Your task to perform on an android device: check out phone information Image 0: 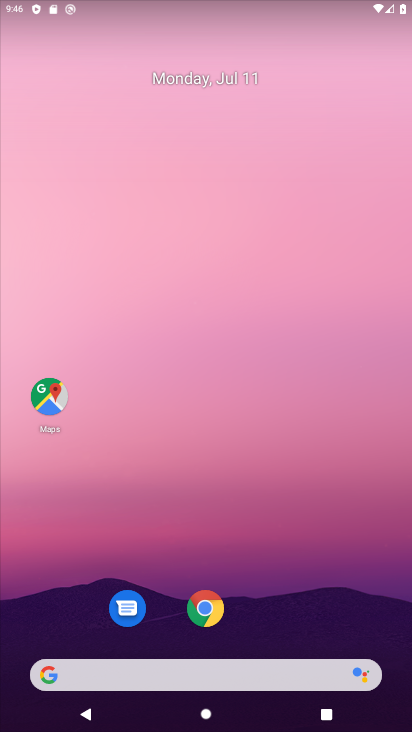
Step 0: drag from (26, 716) to (191, 48)
Your task to perform on an android device: check out phone information Image 1: 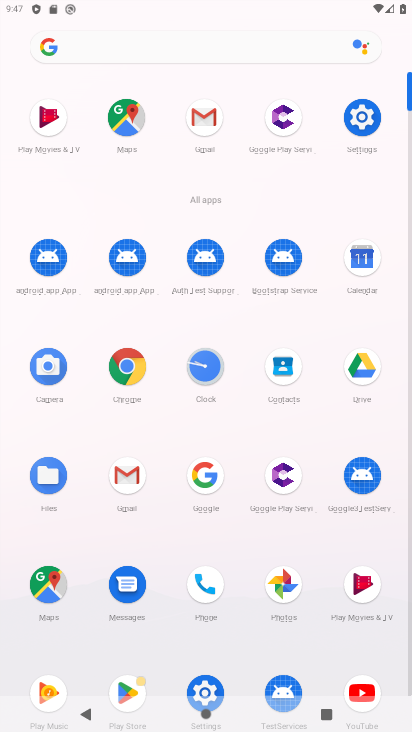
Step 1: click (199, 585)
Your task to perform on an android device: check out phone information Image 2: 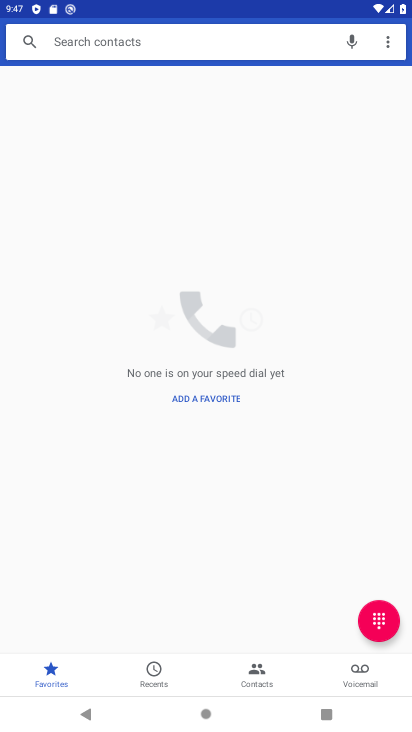
Step 2: task complete